Your task to perform on an android device: Open calendar and show me the fourth week of next month Image 0: 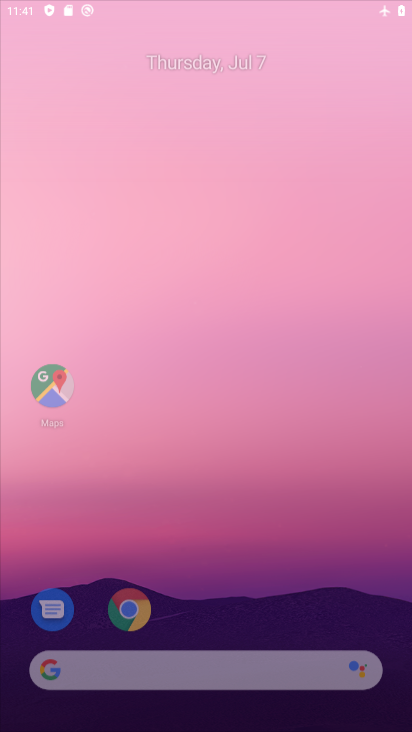
Step 0: drag from (384, 637) to (255, 20)
Your task to perform on an android device: Open calendar and show me the fourth week of next month Image 1: 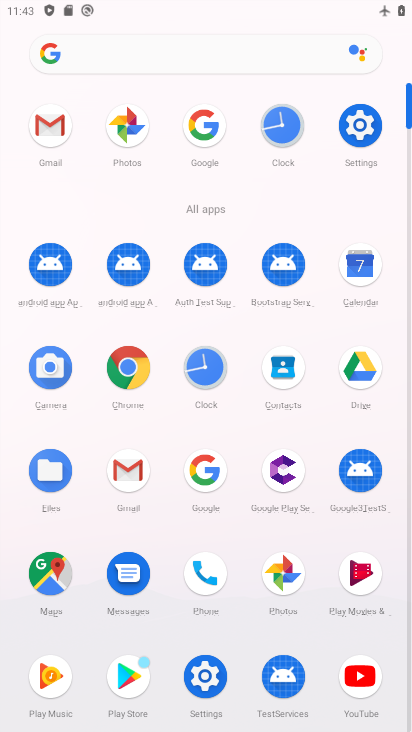
Step 1: click (352, 278)
Your task to perform on an android device: Open calendar and show me the fourth week of next month Image 2: 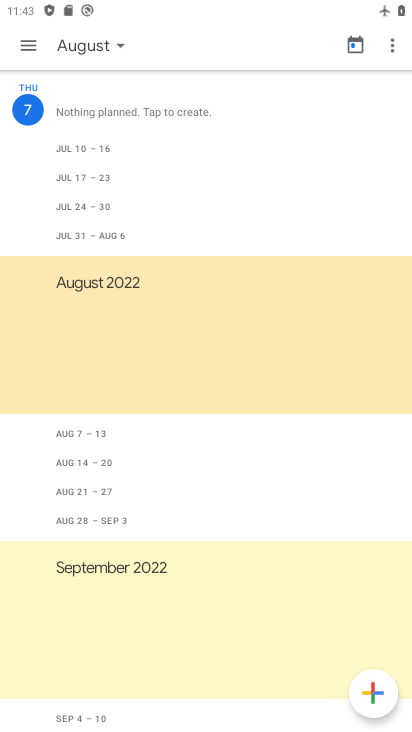
Step 2: click (64, 47)
Your task to perform on an android device: Open calendar and show me the fourth week of next month Image 3: 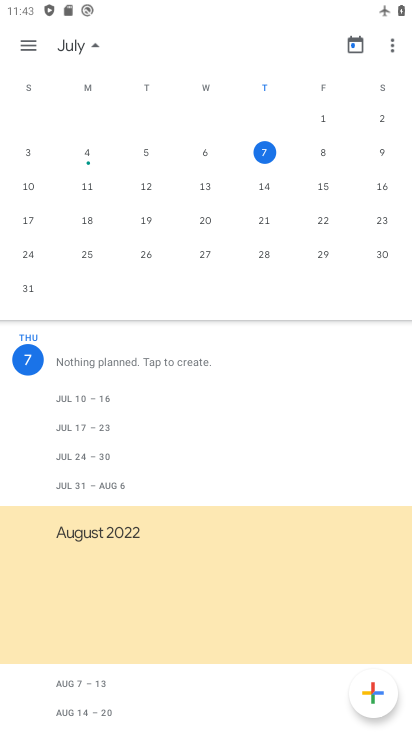
Step 3: drag from (345, 218) to (2, 206)
Your task to perform on an android device: Open calendar and show me the fourth week of next month Image 4: 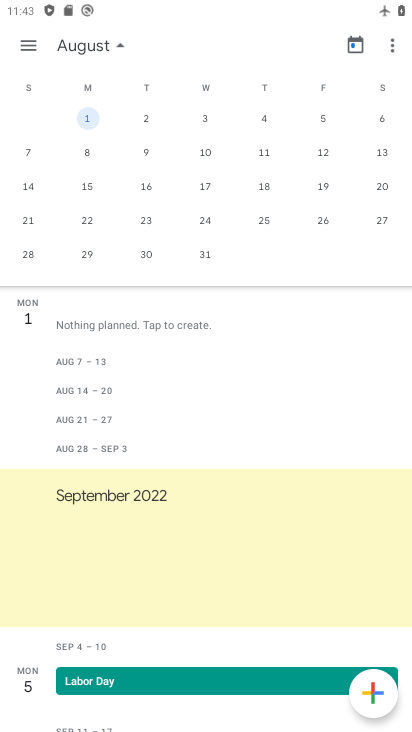
Step 4: click (143, 256)
Your task to perform on an android device: Open calendar and show me the fourth week of next month Image 5: 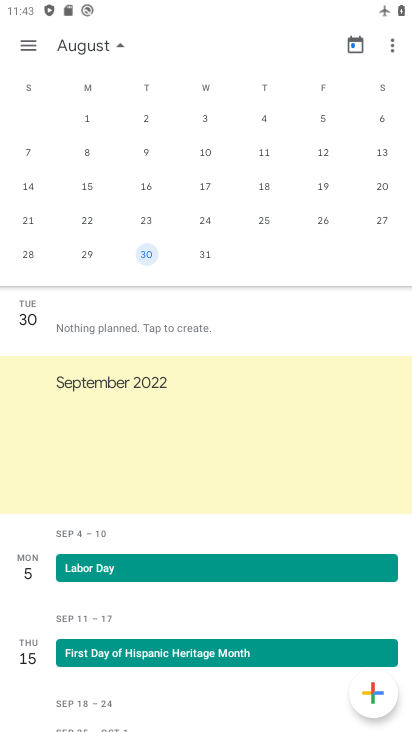
Step 5: task complete